Your task to perform on an android device: Open the calendar app, open the side menu, and click the "Day" option Image 0: 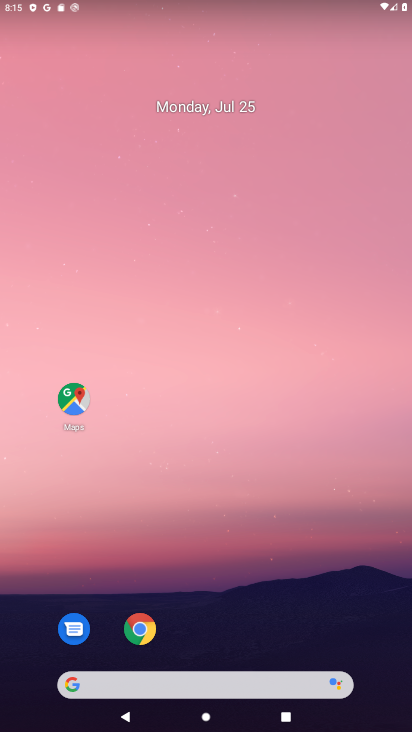
Step 0: click (189, 108)
Your task to perform on an android device: Open the calendar app, open the side menu, and click the "Day" option Image 1: 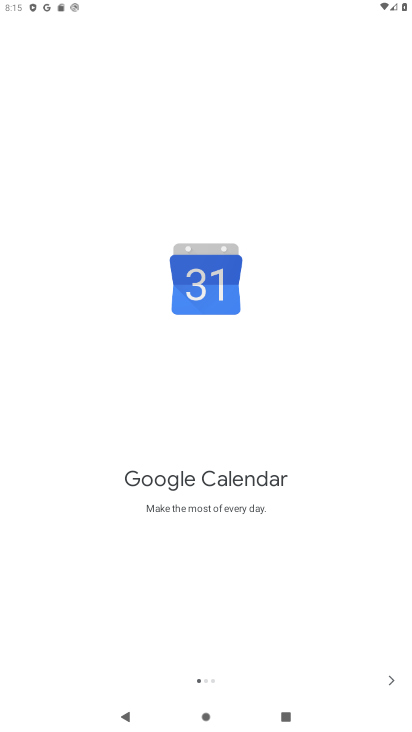
Step 1: click (394, 678)
Your task to perform on an android device: Open the calendar app, open the side menu, and click the "Day" option Image 2: 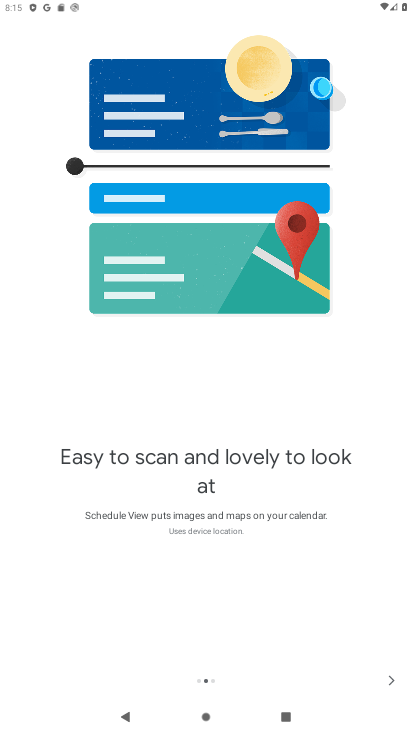
Step 2: click (394, 678)
Your task to perform on an android device: Open the calendar app, open the side menu, and click the "Day" option Image 3: 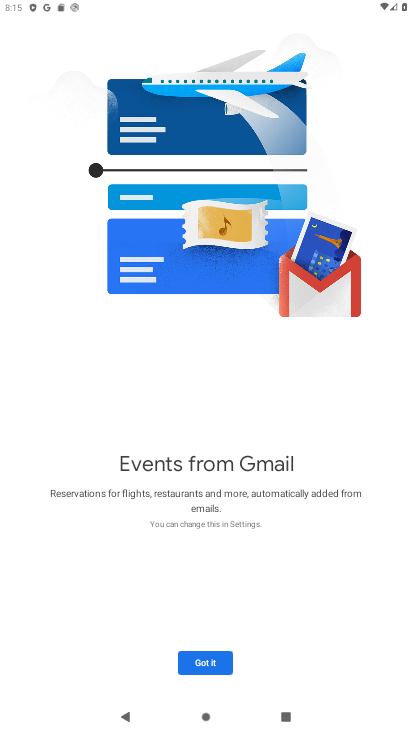
Step 3: click (218, 665)
Your task to perform on an android device: Open the calendar app, open the side menu, and click the "Day" option Image 4: 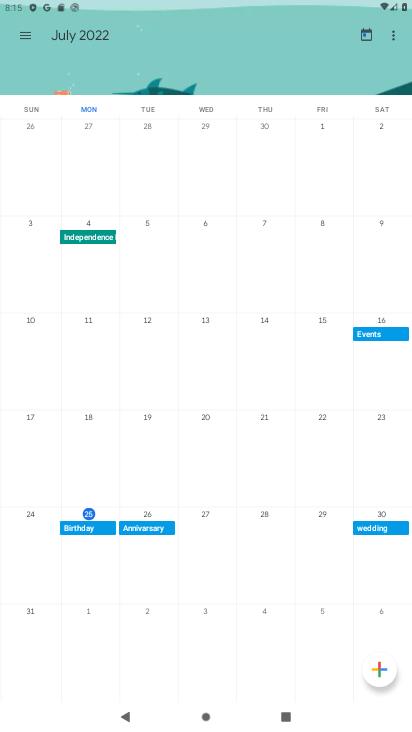
Step 4: click (24, 42)
Your task to perform on an android device: Open the calendar app, open the side menu, and click the "Day" option Image 5: 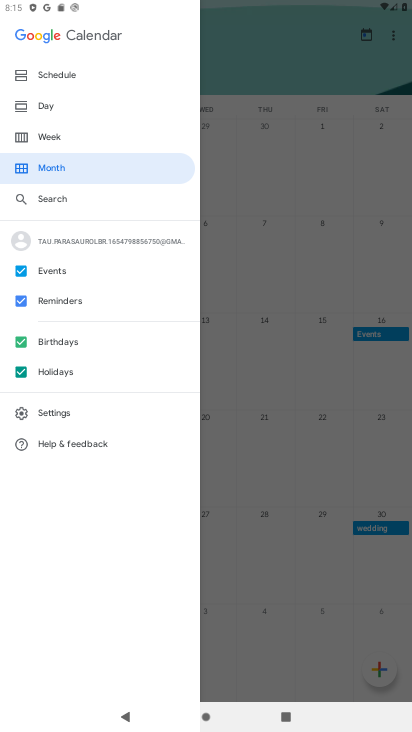
Step 5: click (63, 104)
Your task to perform on an android device: Open the calendar app, open the side menu, and click the "Day" option Image 6: 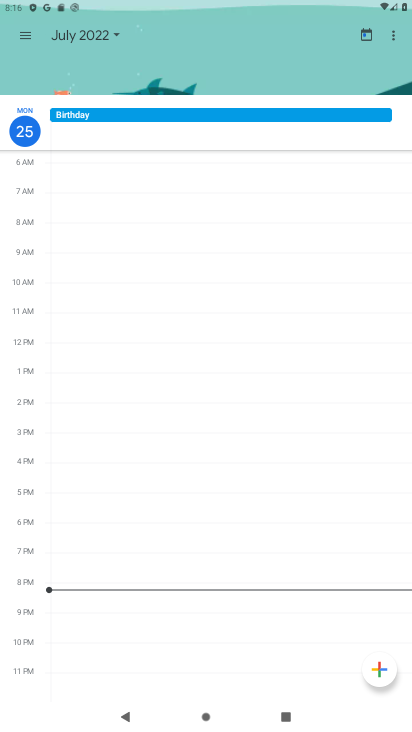
Step 6: task complete